Your task to perform on an android device: open app "DoorDash - Dasher" (install if not already installed) Image 0: 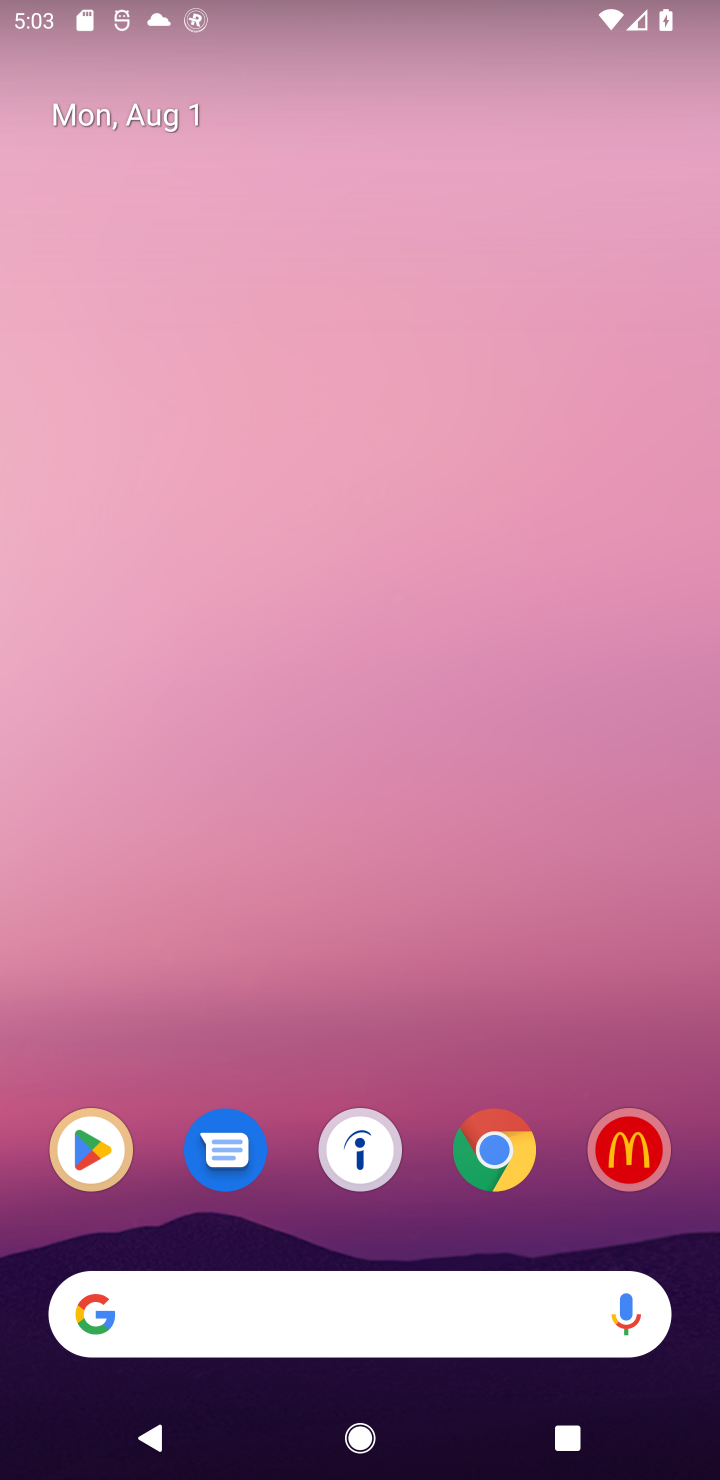
Step 0: click (122, 1188)
Your task to perform on an android device: open app "DoorDash - Dasher" (install if not already installed) Image 1: 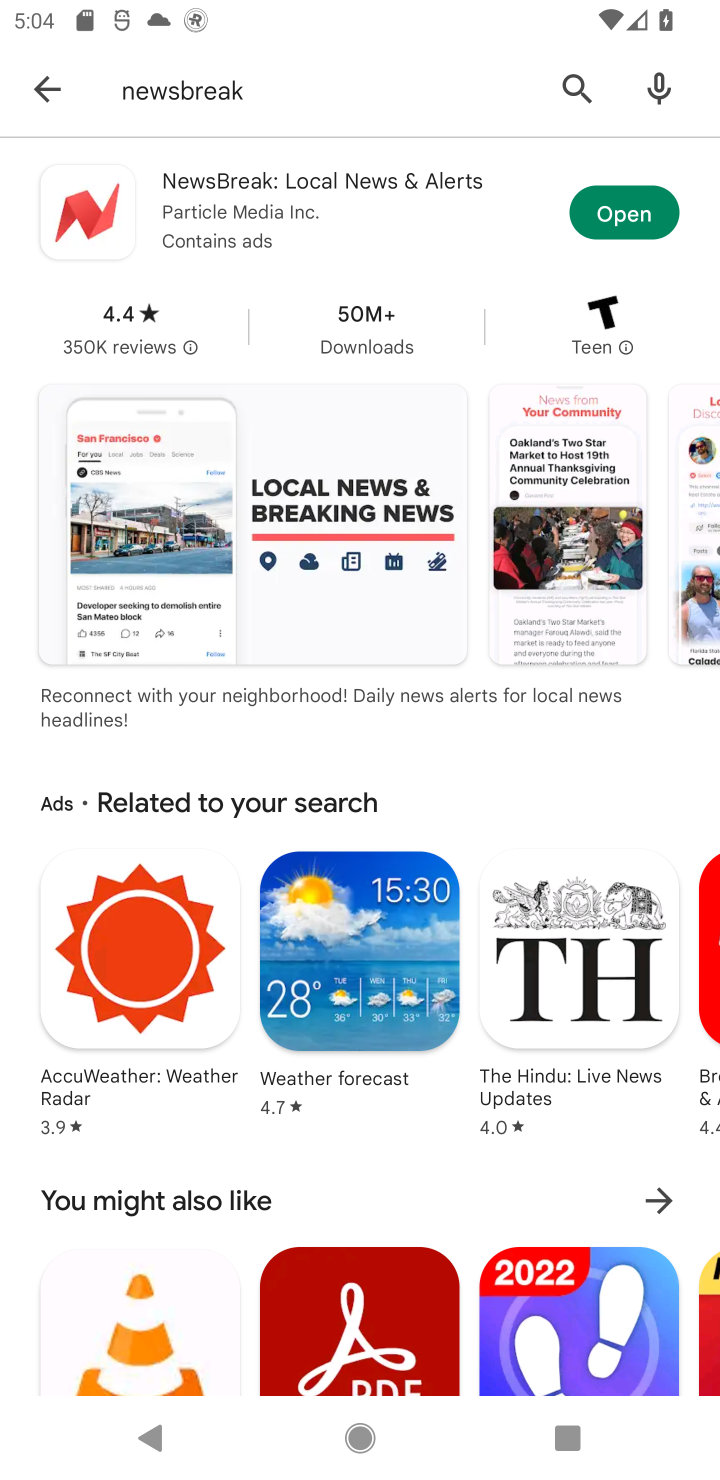
Step 1: click (573, 92)
Your task to perform on an android device: open app "DoorDash - Dasher" (install if not already installed) Image 2: 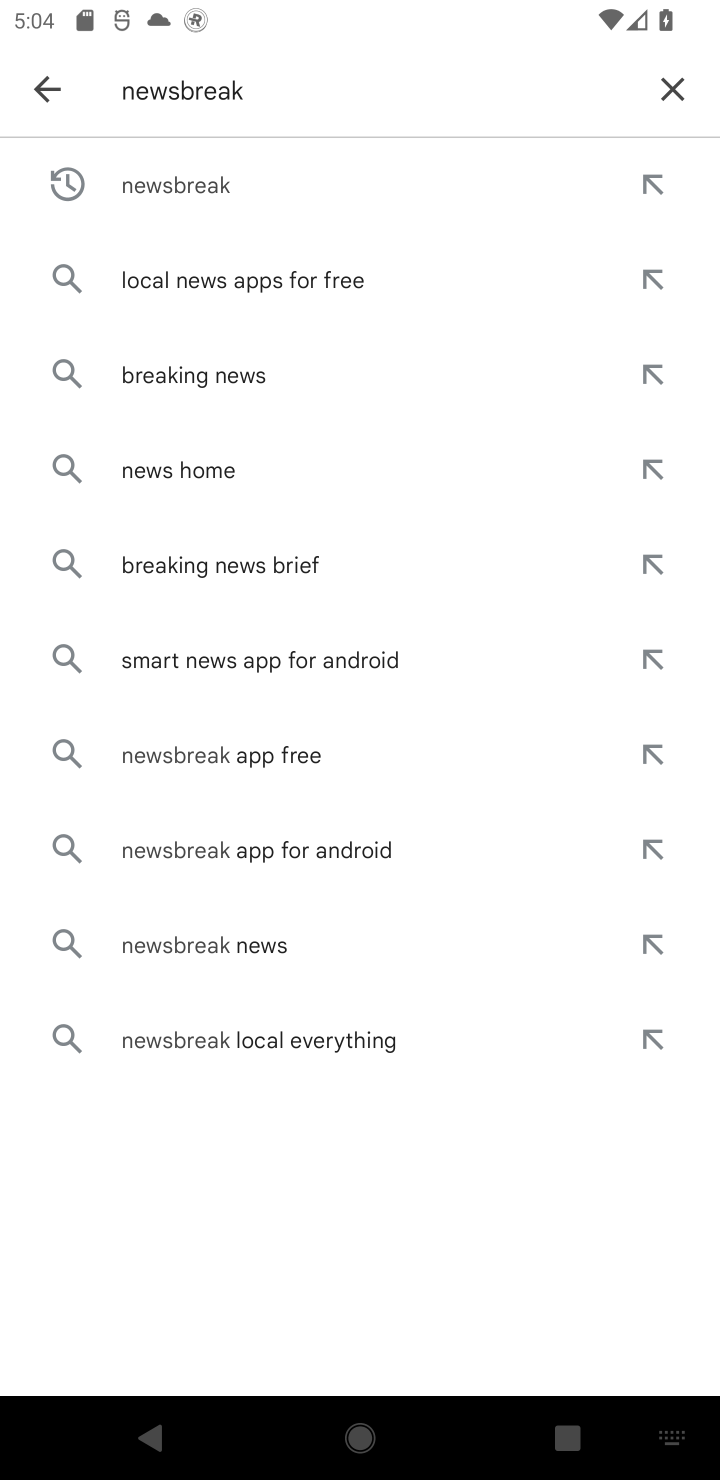
Step 2: click (660, 75)
Your task to perform on an android device: open app "DoorDash - Dasher" (install if not already installed) Image 3: 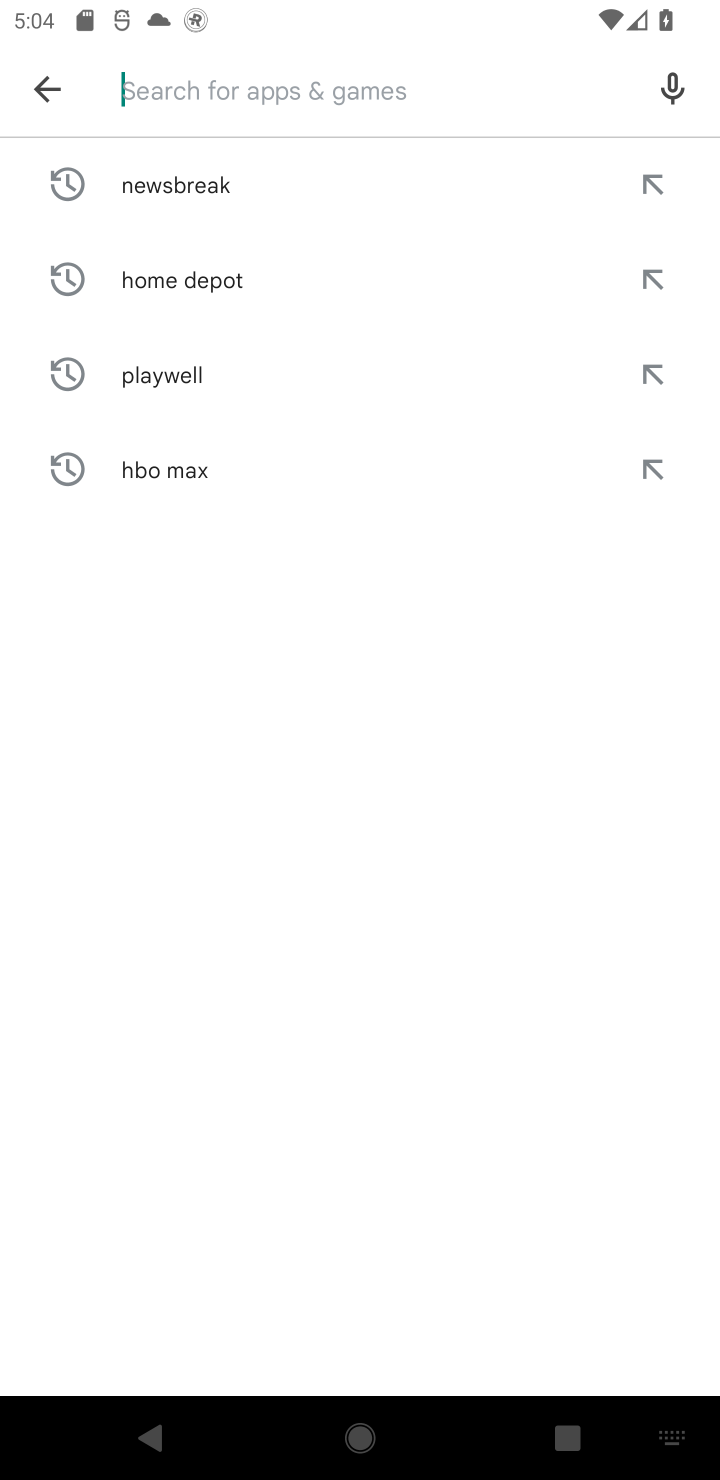
Step 3: type "doordash"
Your task to perform on an android device: open app "DoorDash - Dasher" (install if not already installed) Image 4: 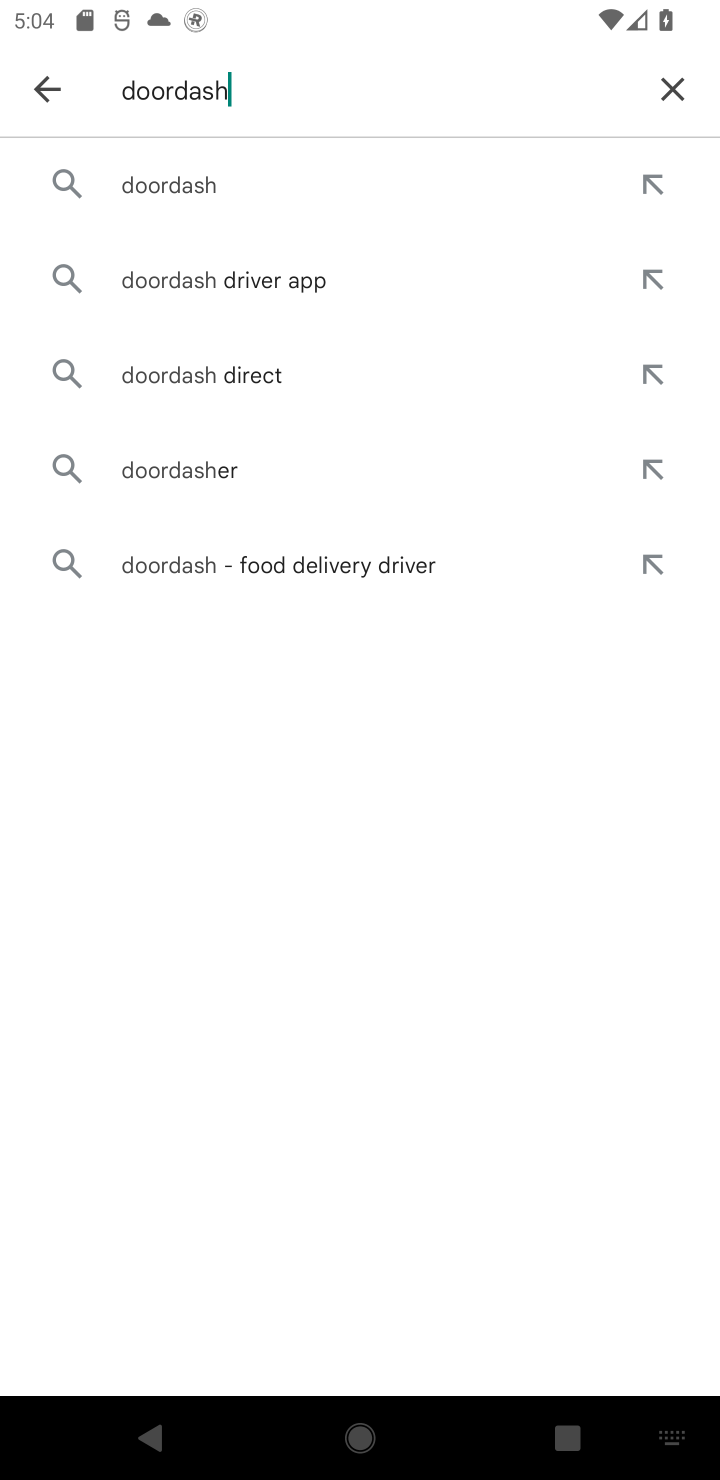
Step 4: click (433, 194)
Your task to perform on an android device: open app "DoorDash - Dasher" (install if not already installed) Image 5: 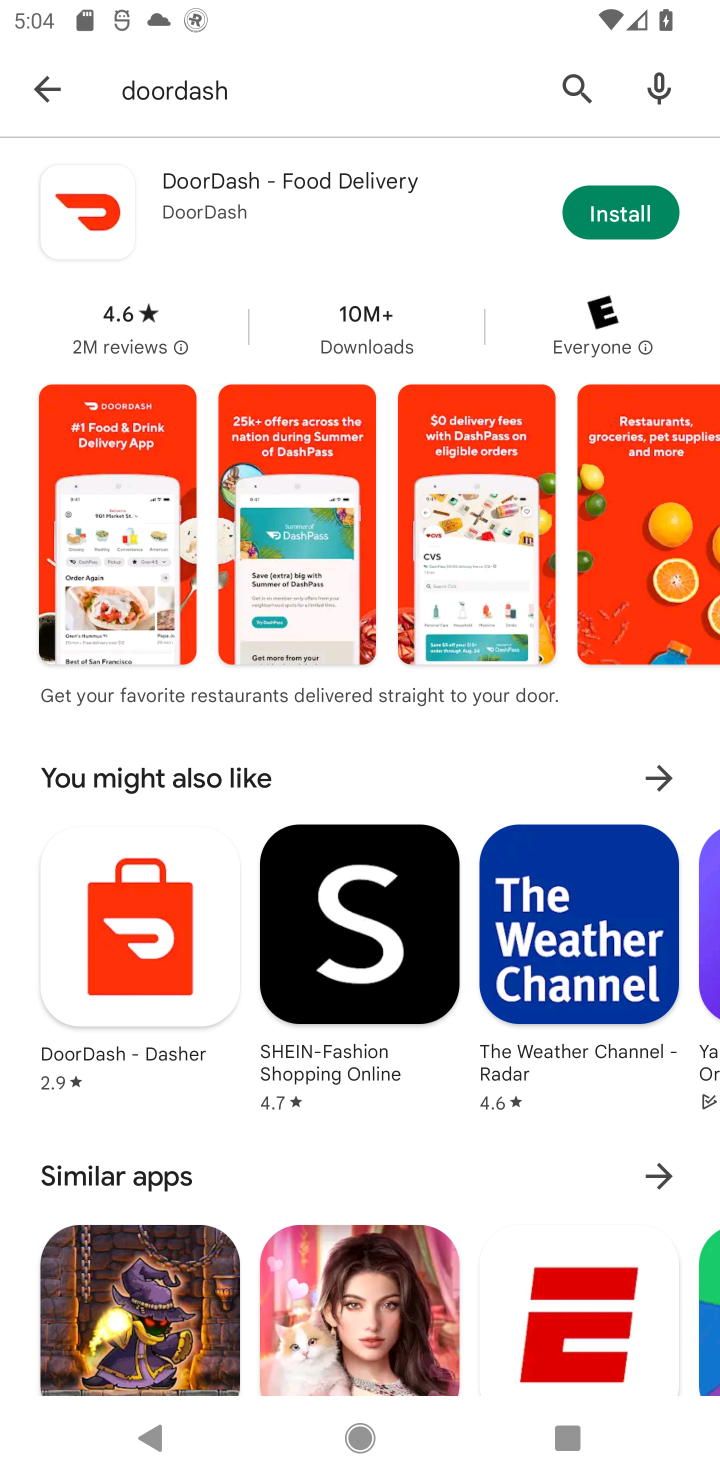
Step 5: click (610, 224)
Your task to perform on an android device: open app "DoorDash - Dasher" (install if not already installed) Image 6: 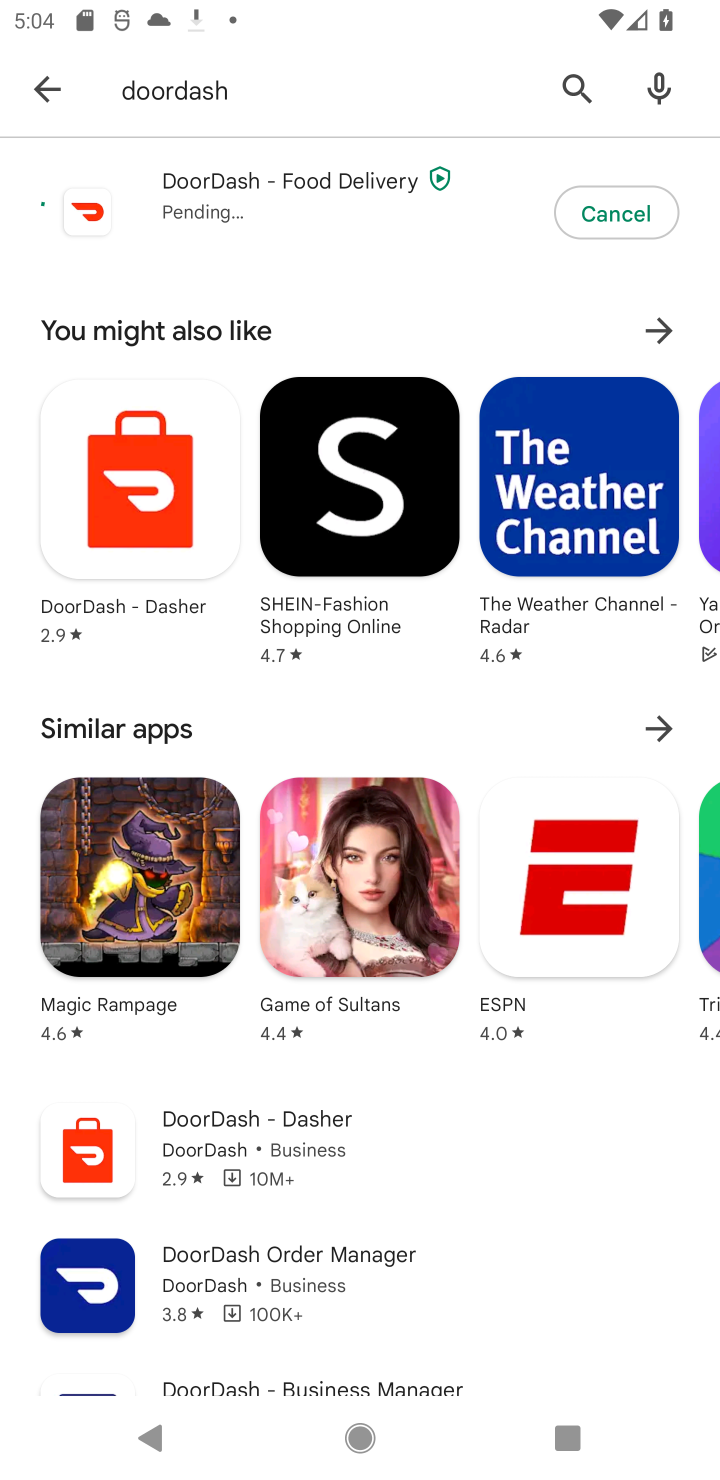
Step 6: task complete